Your task to perform on an android device: Open eBay Image 0: 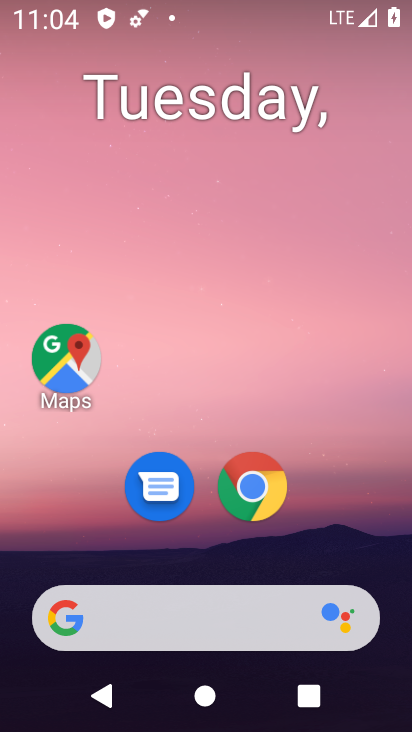
Step 0: drag from (357, 550) to (364, 74)
Your task to perform on an android device: Open eBay Image 1: 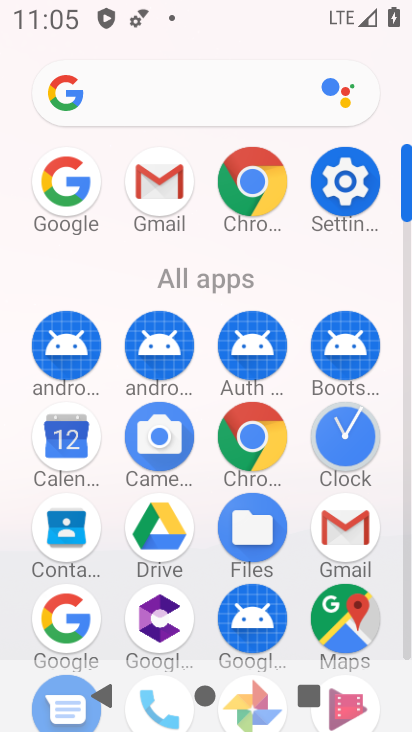
Step 1: click (252, 458)
Your task to perform on an android device: Open eBay Image 2: 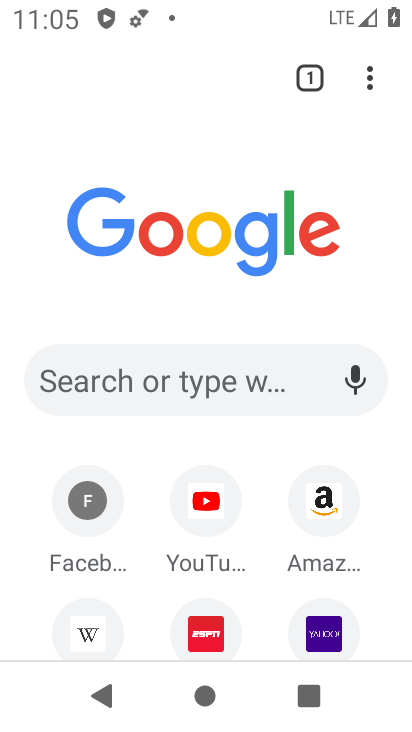
Step 2: click (205, 389)
Your task to perform on an android device: Open eBay Image 3: 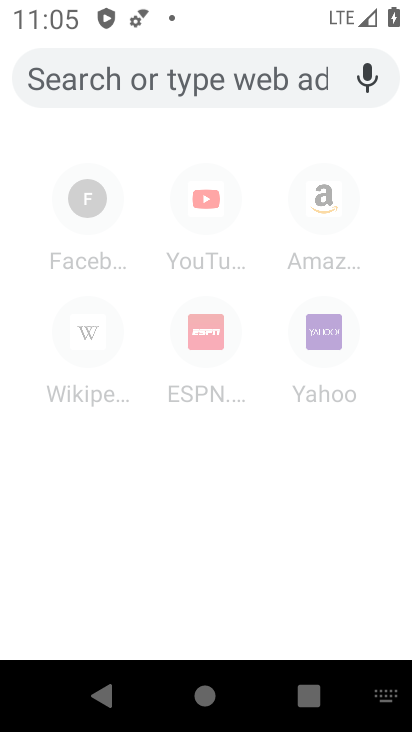
Step 3: type "ebay"
Your task to perform on an android device: Open eBay Image 4: 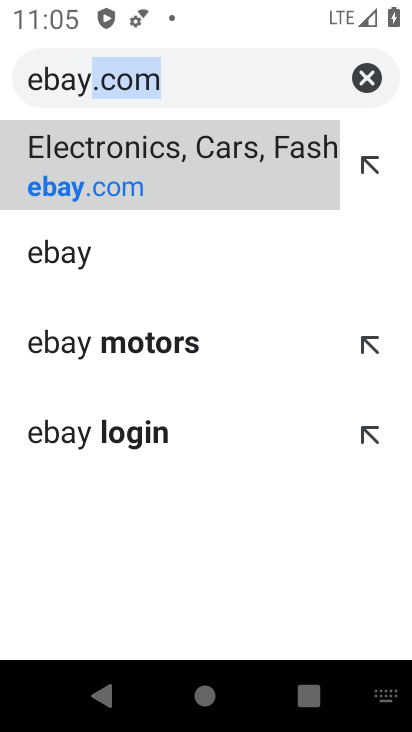
Step 4: click (175, 185)
Your task to perform on an android device: Open eBay Image 5: 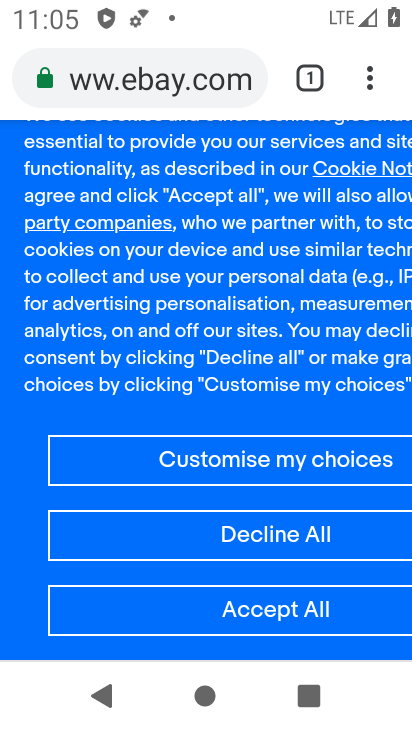
Step 5: task complete